Your task to perform on an android device: Open the map Image 0: 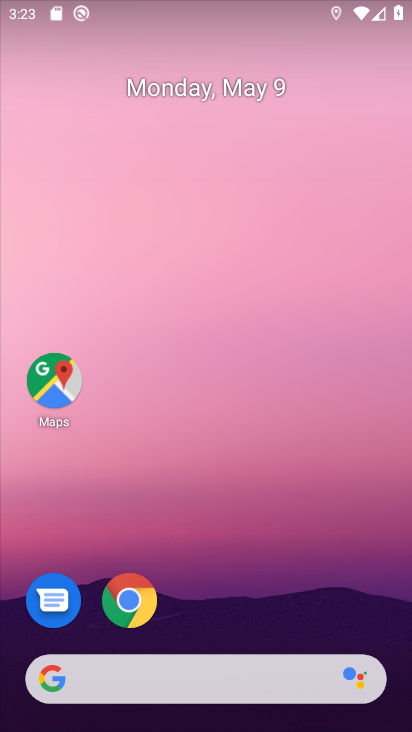
Step 0: click (62, 387)
Your task to perform on an android device: Open the map Image 1: 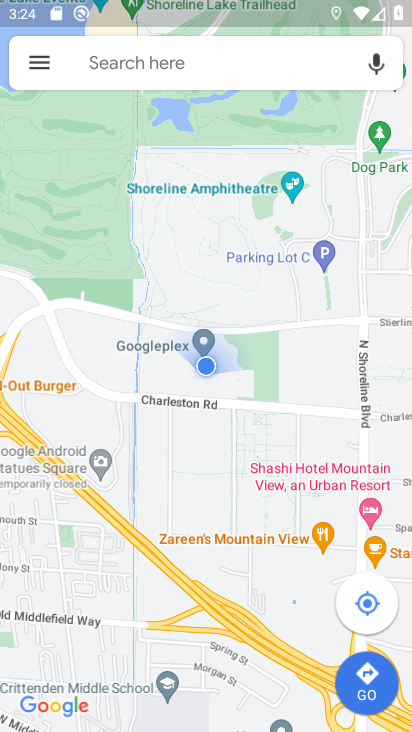
Step 1: task complete